Your task to perform on an android device: Search for a sofa on article.com Image 0: 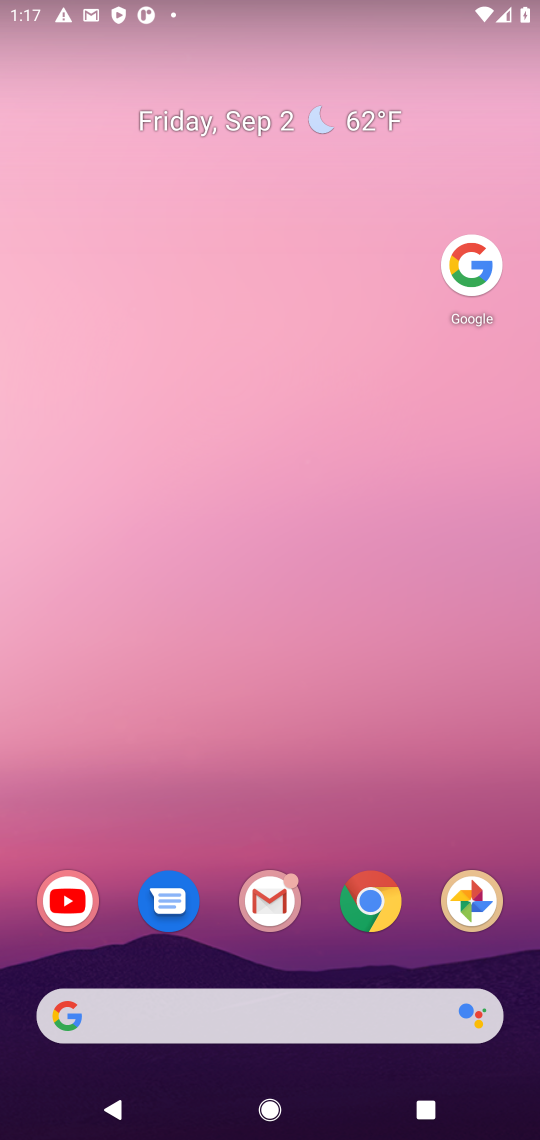
Step 0: drag from (231, 859) to (207, 216)
Your task to perform on an android device: Search for a sofa on article.com Image 1: 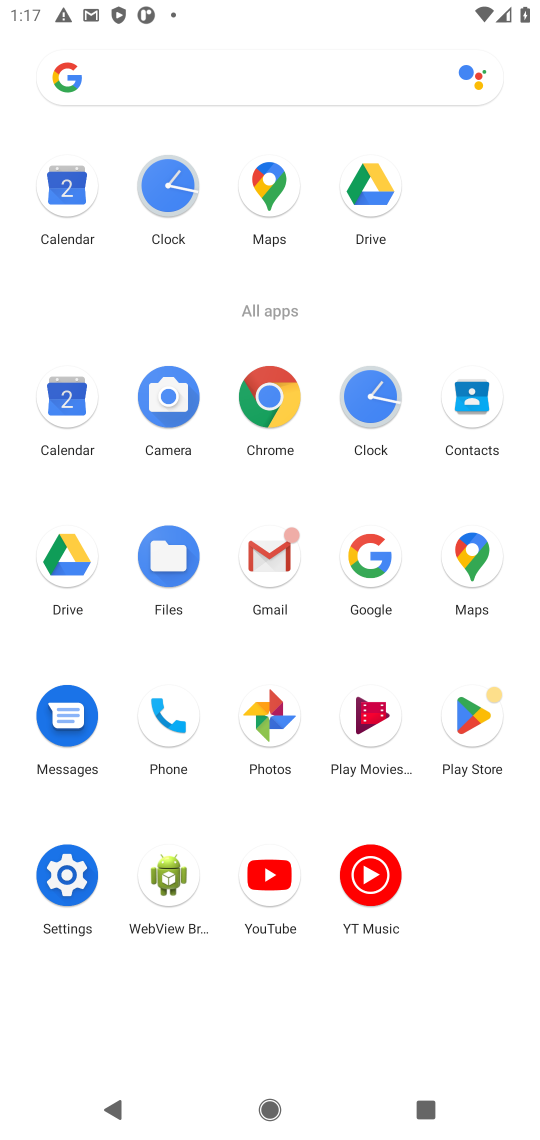
Step 1: click (356, 538)
Your task to perform on an android device: Search for a sofa on article.com Image 2: 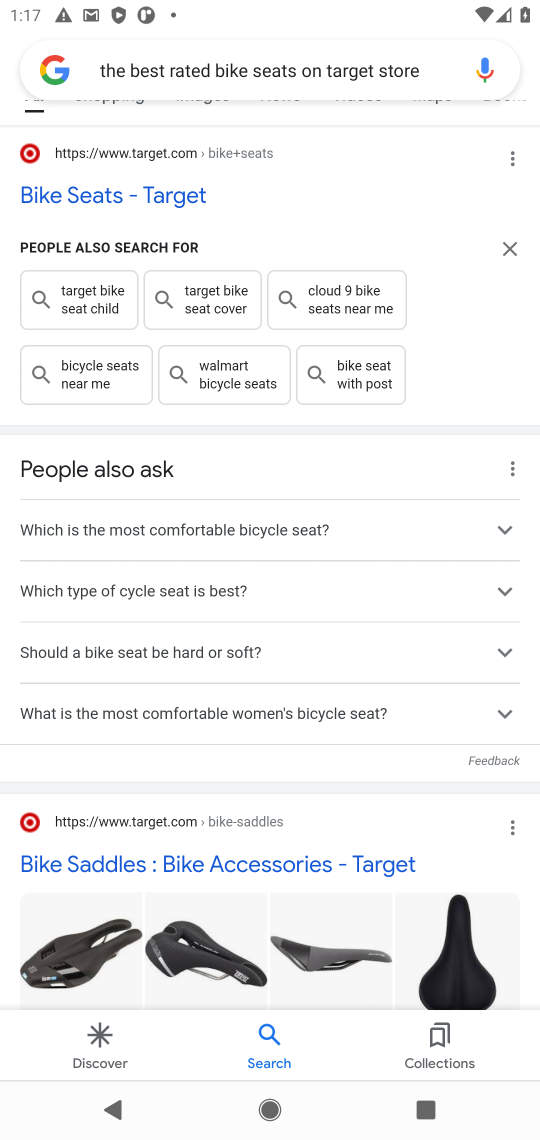
Step 2: click (420, 68)
Your task to perform on an android device: Search for a sofa on article.com Image 3: 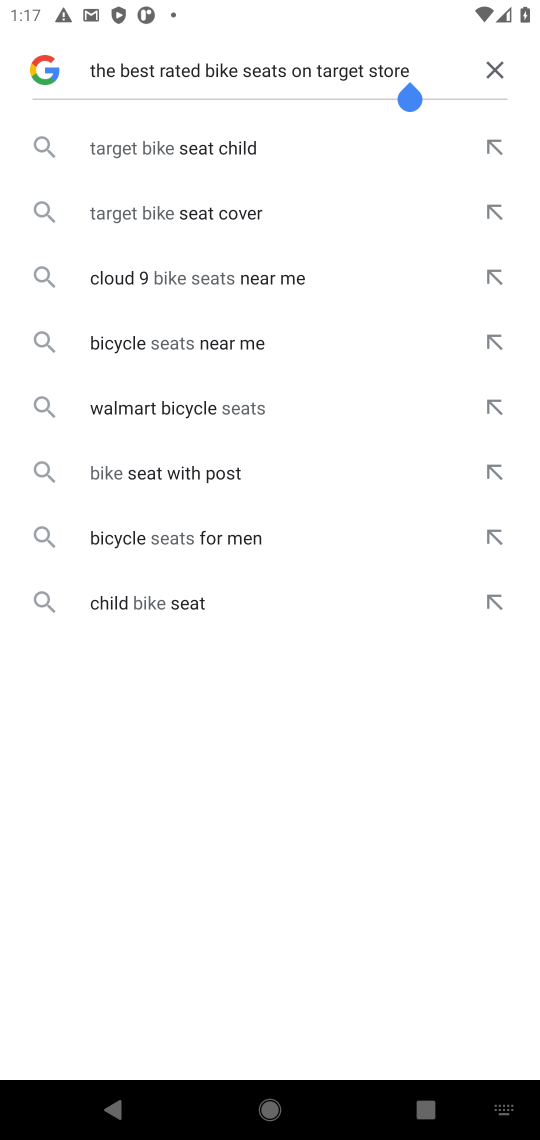
Step 3: click (487, 66)
Your task to perform on an android device: Search for a sofa on article.com Image 4: 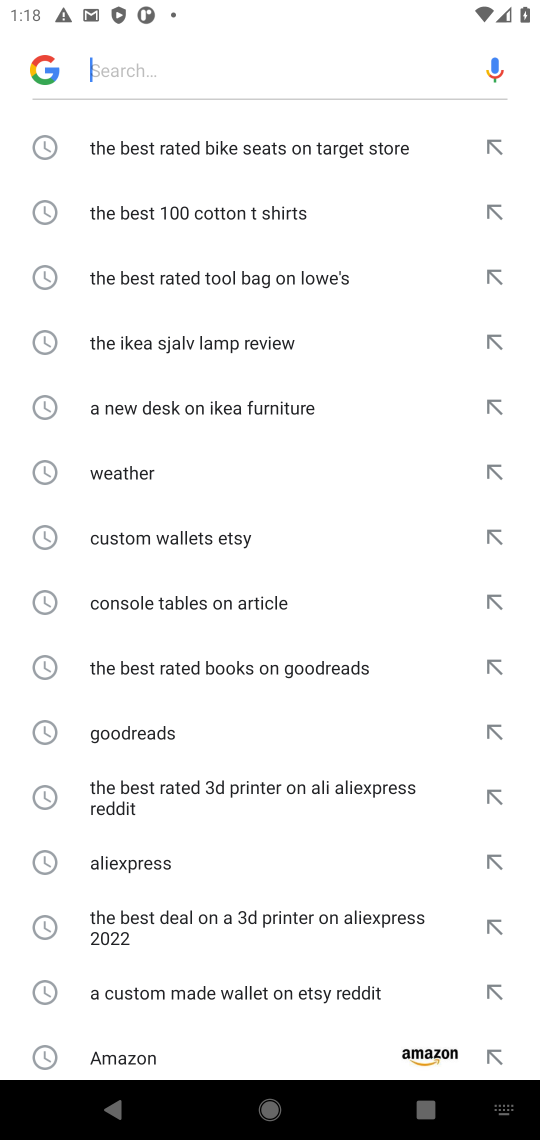
Step 4: click (196, 62)
Your task to perform on an android device: Search for a sofa on article.com Image 5: 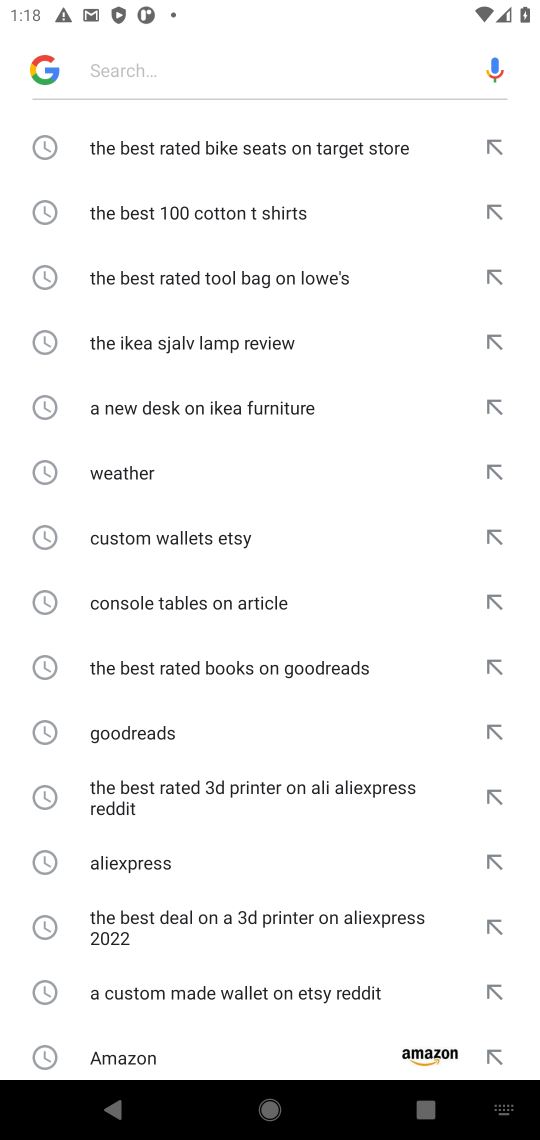
Step 5: type "a sofa on article.com "
Your task to perform on an android device: Search for a sofa on article.com Image 6: 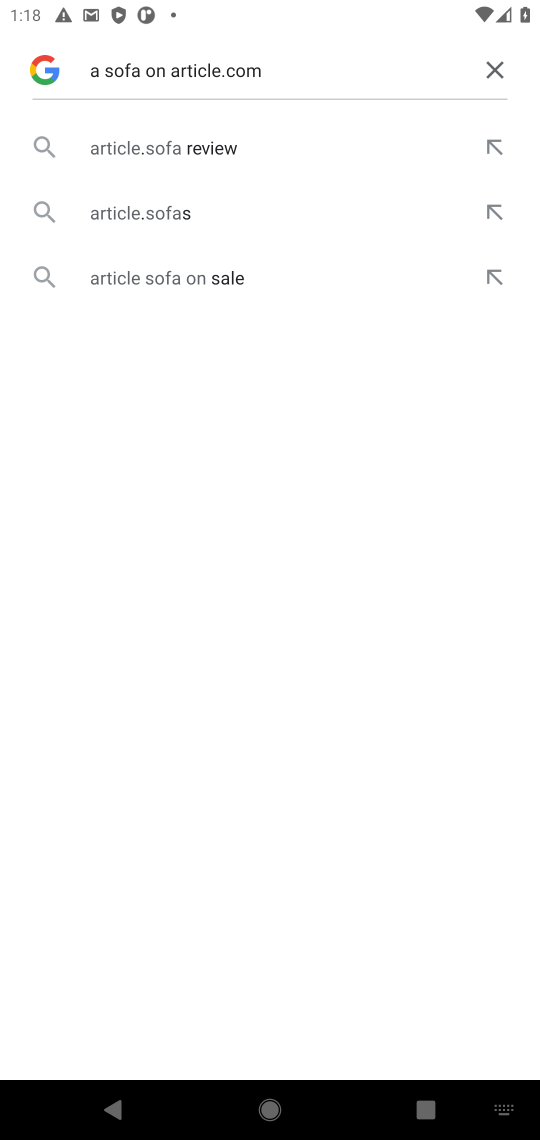
Step 6: click (170, 225)
Your task to perform on an android device: Search for a sofa on article.com Image 7: 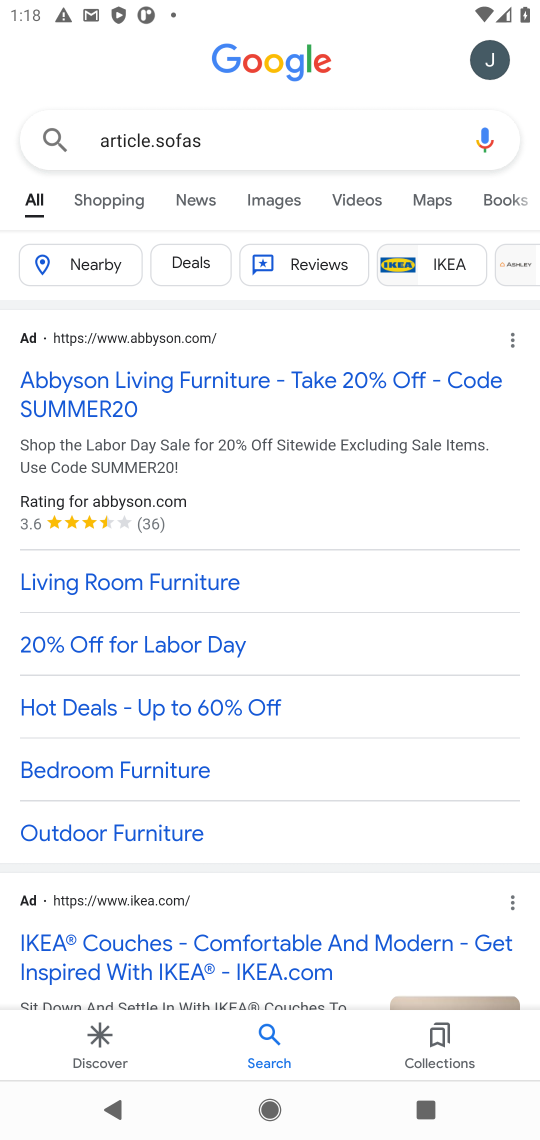
Step 7: drag from (204, 885) to (260, 453)
Your task to perform on an android device: Search for a sofa on article.com Image 8: 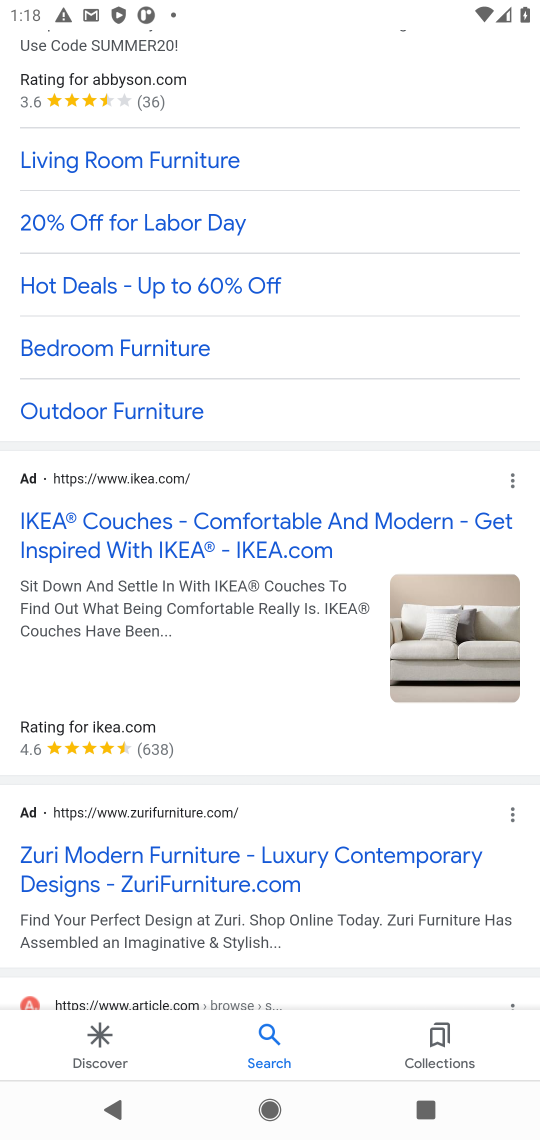
Step 8: drag from (195, 852) to (359, 242)
Your task to perform on an android device: Search for a sofa on article.com Image 9: 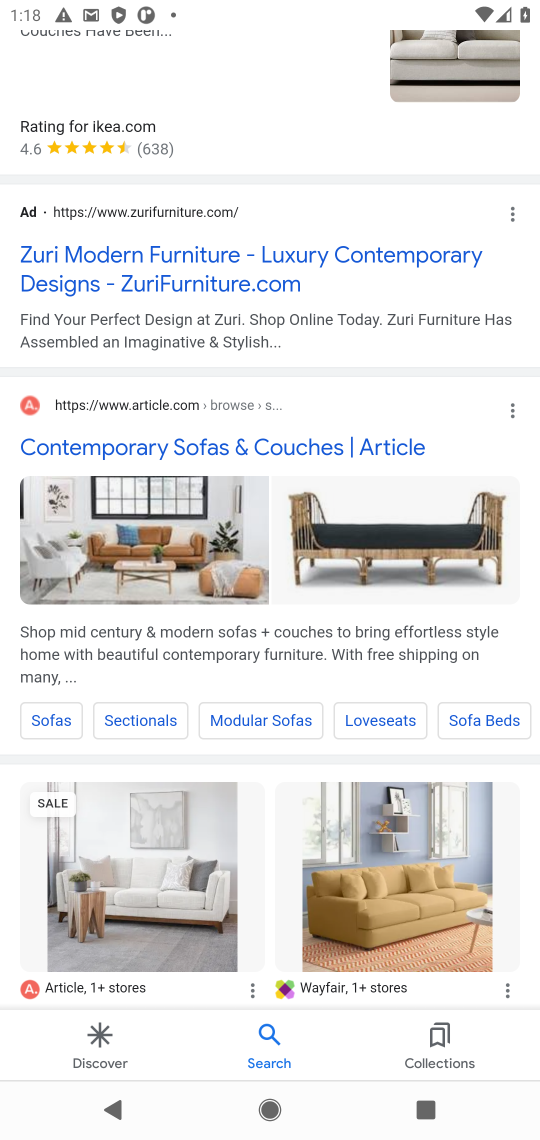
Step 9: drag from (168, 698) to (428, 175)
Your task to perform on an android device: Search for a sofa on article.com Image 10: 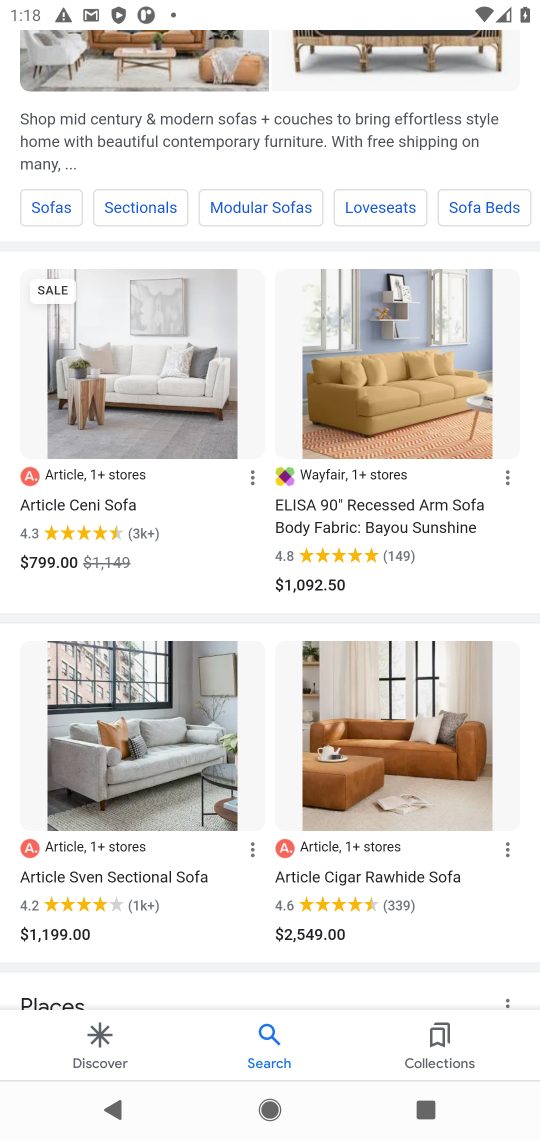
Step 10: drag from (321, 303) to (392, 126)
Your task to perform on an android device: Search for a sofa on article.com Image 11: 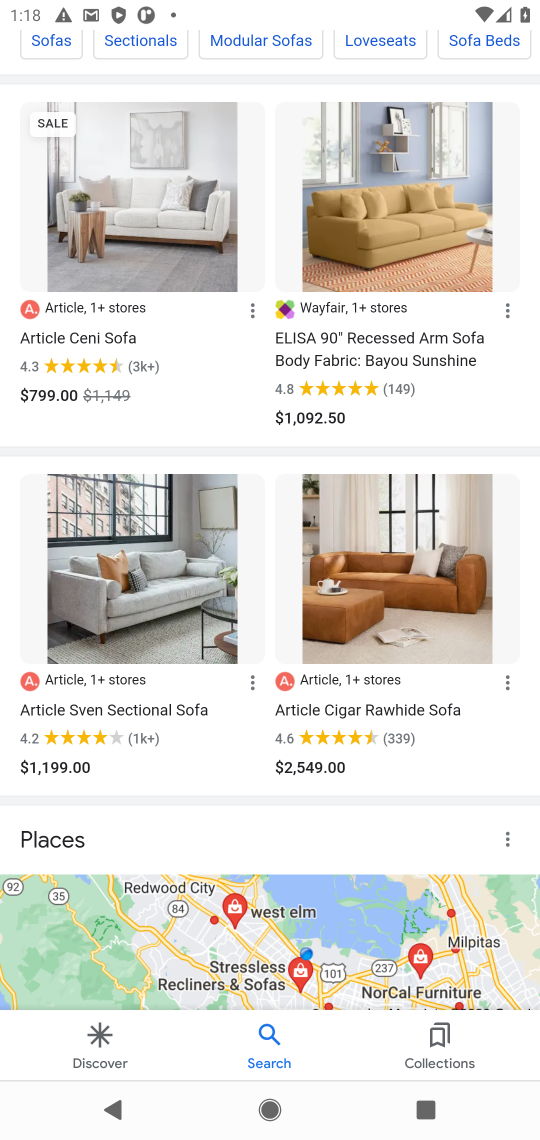
Step 11: drag from (266, 495) to (451, 30)
Your task to perform on an android device: Search for a sofa on article.com Image 12: 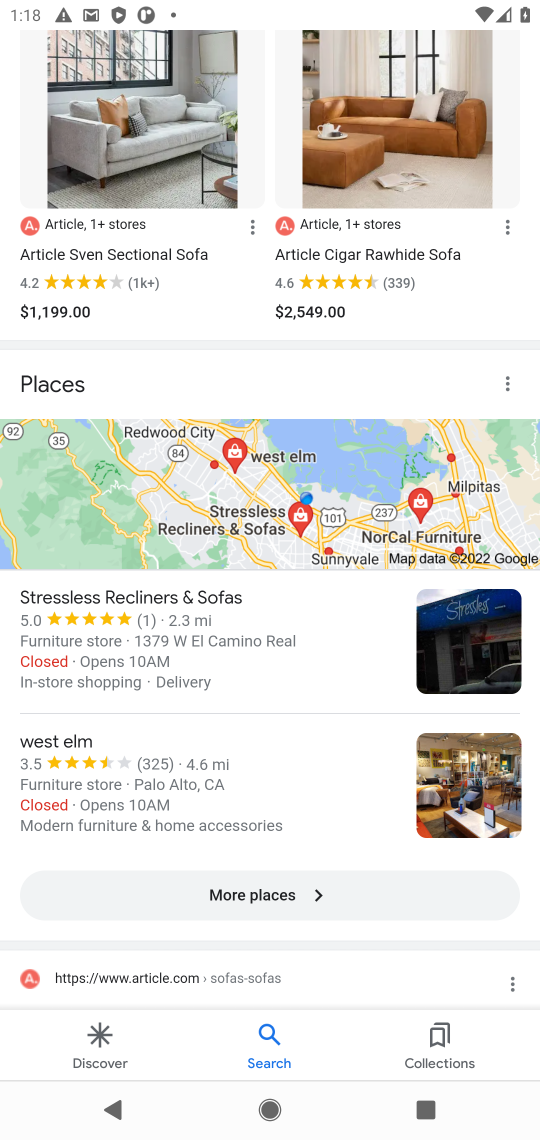
Step 12: drag from (283, 186) to (324, 89)
Your task to perform on an android device: Search for a sofa on article.com Image 13: 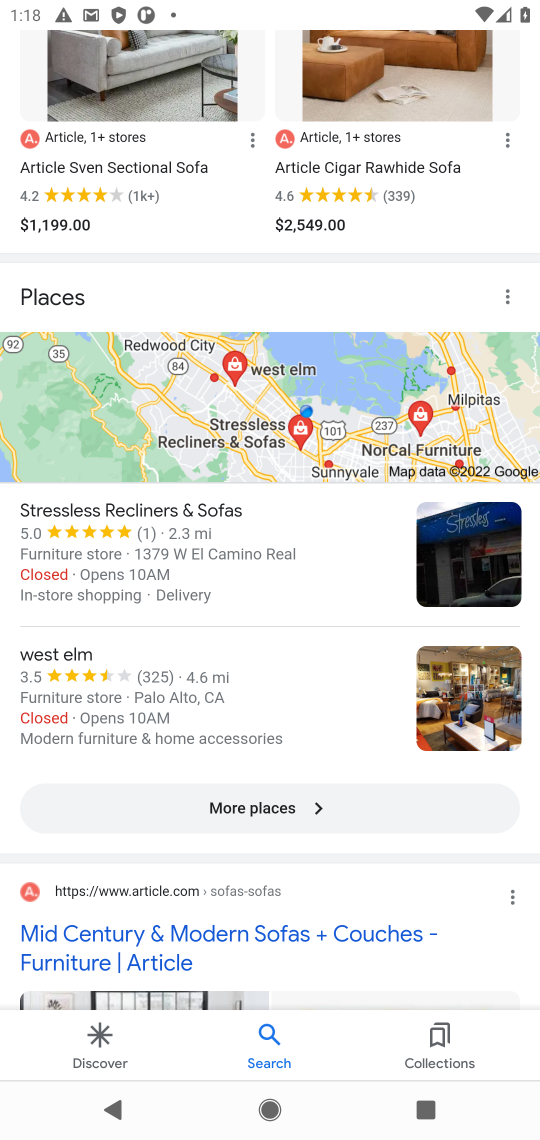
Step 13: click (132, 944)
Your task to perform on an android device: Search for a sofa on article.com Image 14: 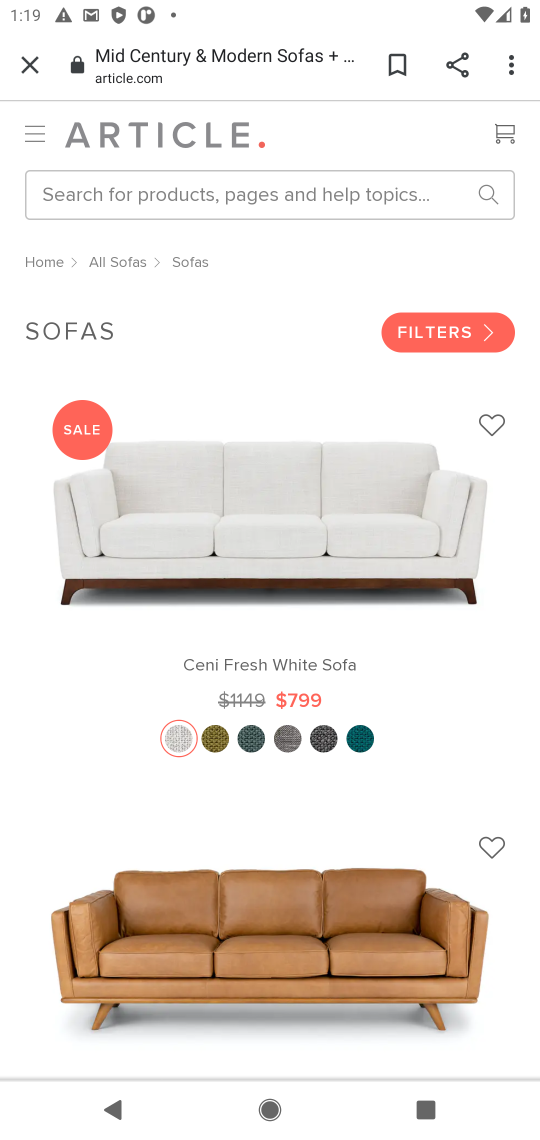
Step 14: drag from (333, 984) to (307, 290)
Your task to perform on an android device: Search for a sofa on article.com Image 15: 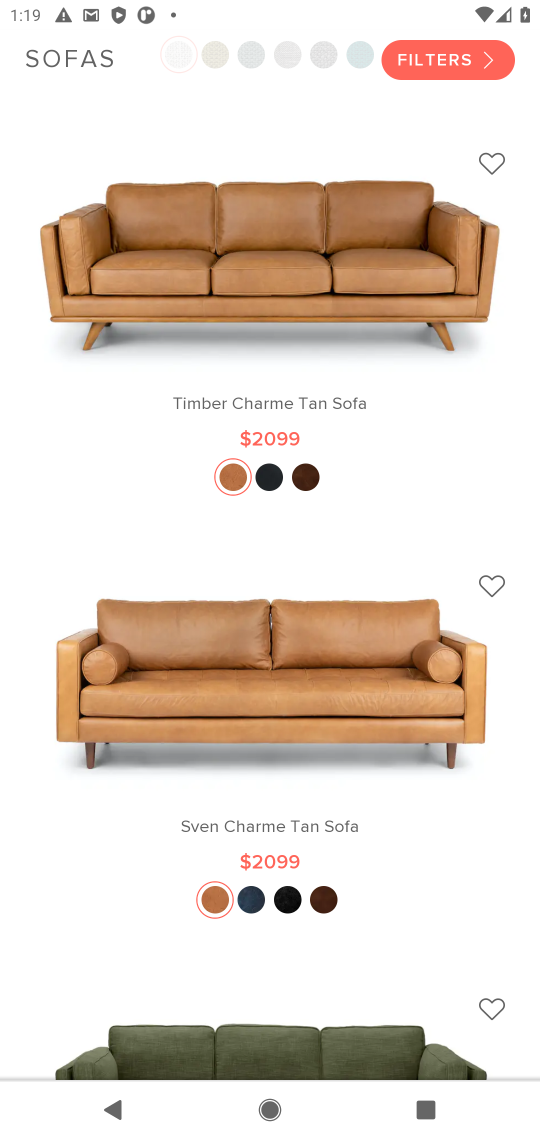
Step 15: click (270, 489)
Your task to perform on an android device: Search for a sofa on article.com Image 16: 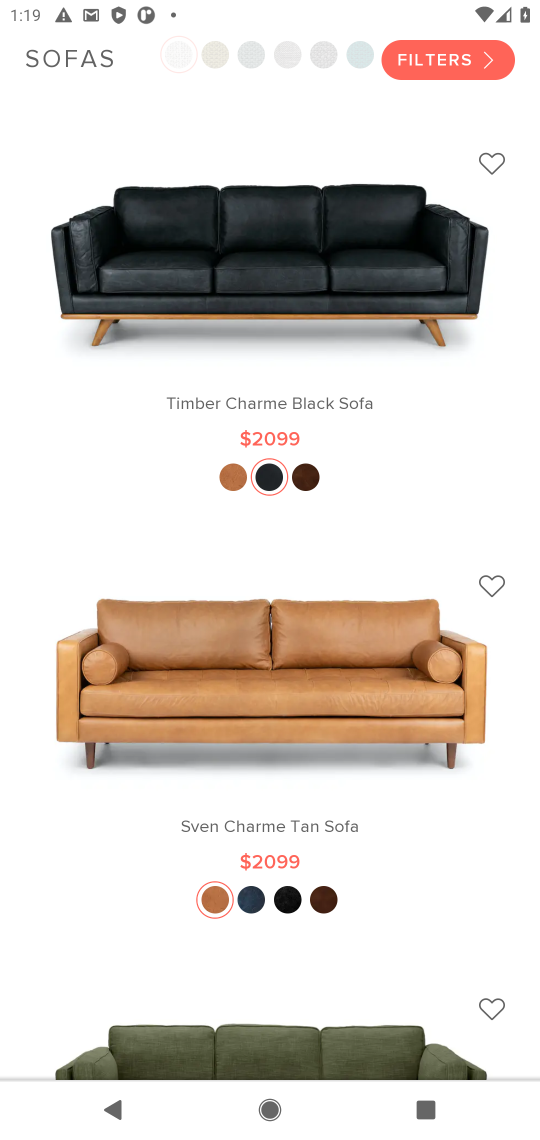
Step 16: click (296, 472)
Your task to perform on an android device: Search for a sofa on article.com Image 17: 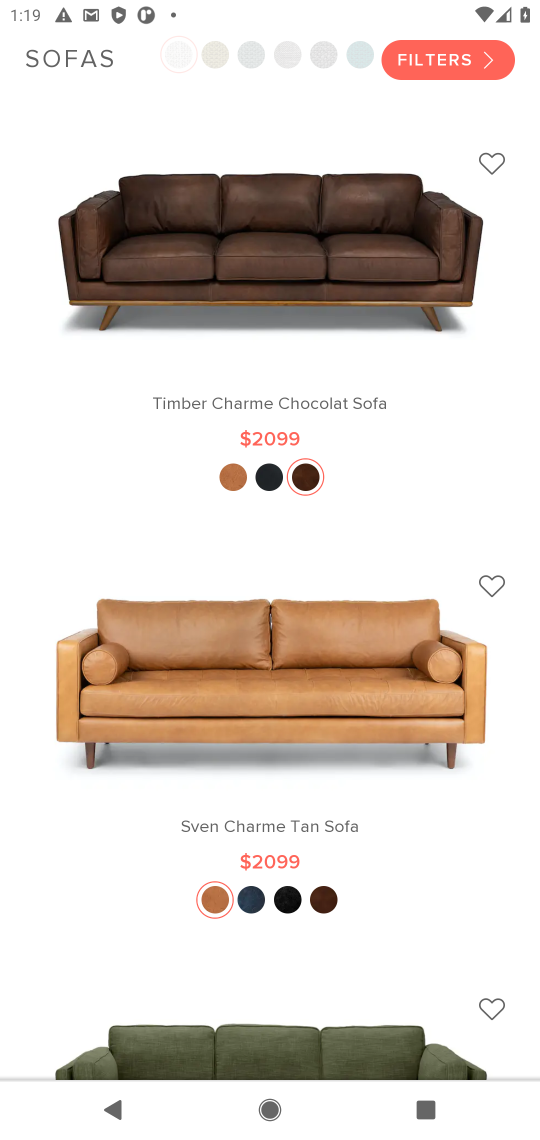
Step 17: drag from (259, 775) to (329, 244)
Your task to perform on an android device: Search for a sofa on article.com Image 18: 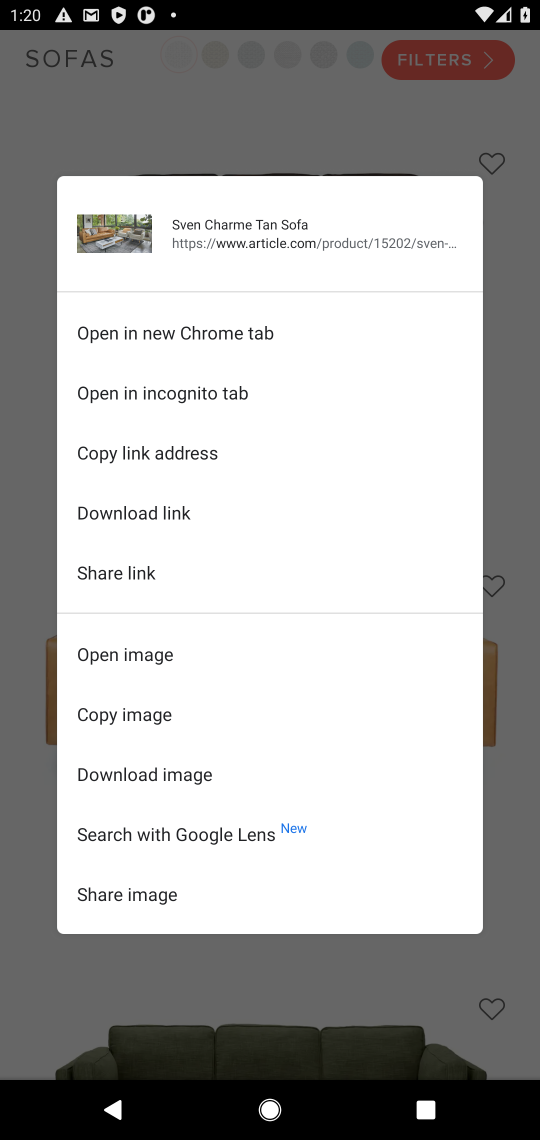
Step 18: click (311, 124)
Your task to perform on an android device: Search for a sofa on article.com Image 19: 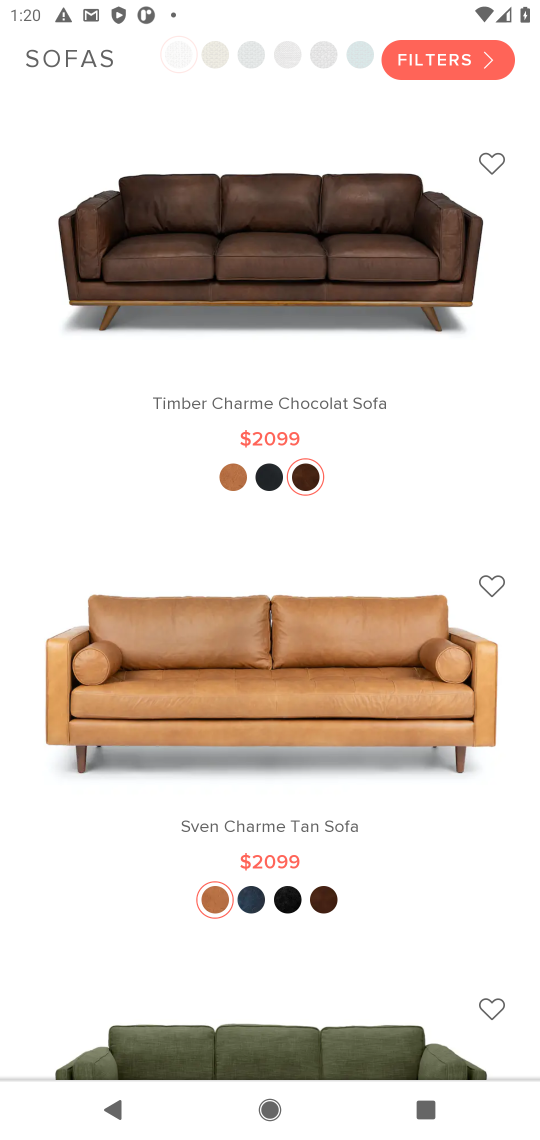
Step 19: task complete